Your task to perform on an android device: Go to display settings Image 0: 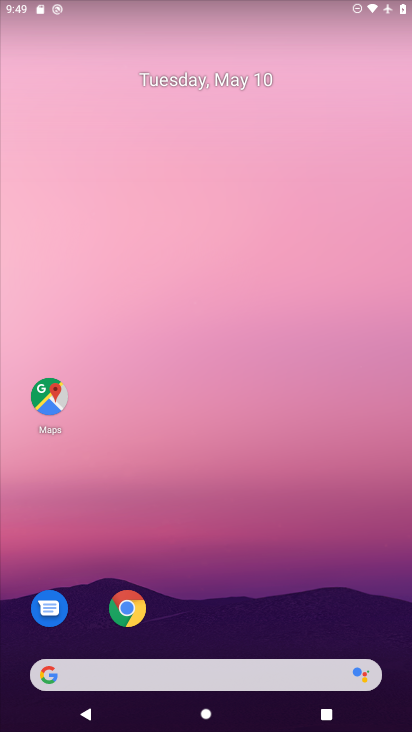
Step 0: drag from (271, 647) to (255, 287)
Your task to perform on an android device: Go to display settings Image 1: 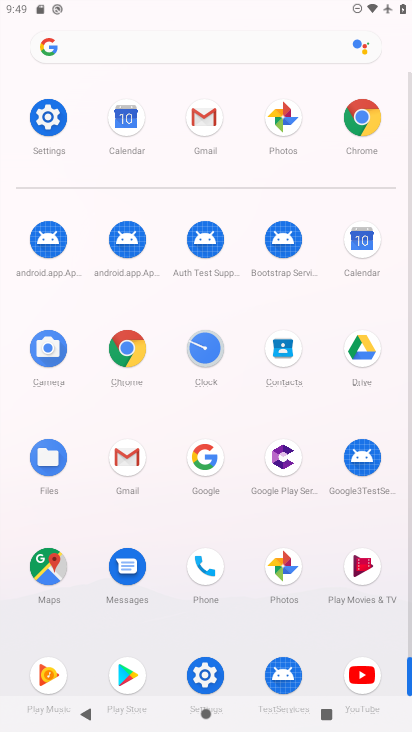
Step 1: click (56, 114)
Your task to perform on an android device: Go to display settings Image 2: 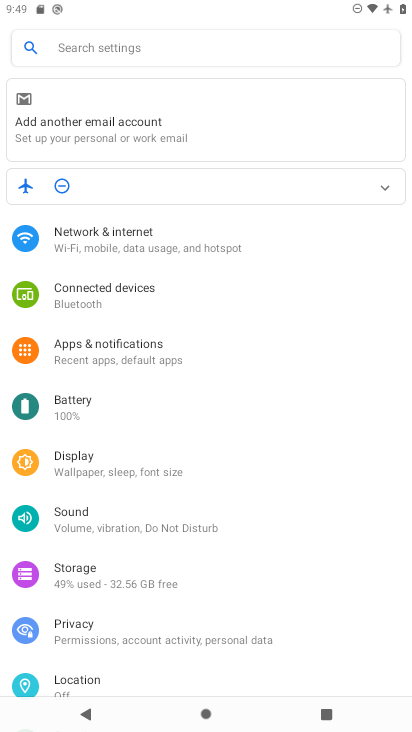
Step 2: click (94, 440)
Your task to perform on an android device: Go to display settings Image 3: 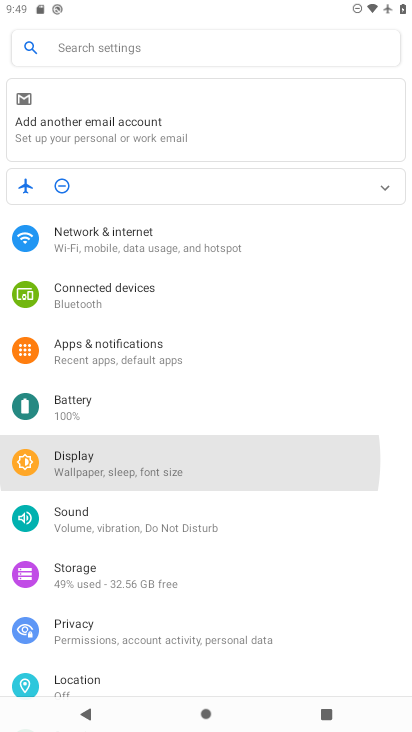
Step 3: click (102, 477)
Your task to perform on an android device: Go to display settings Image 4: 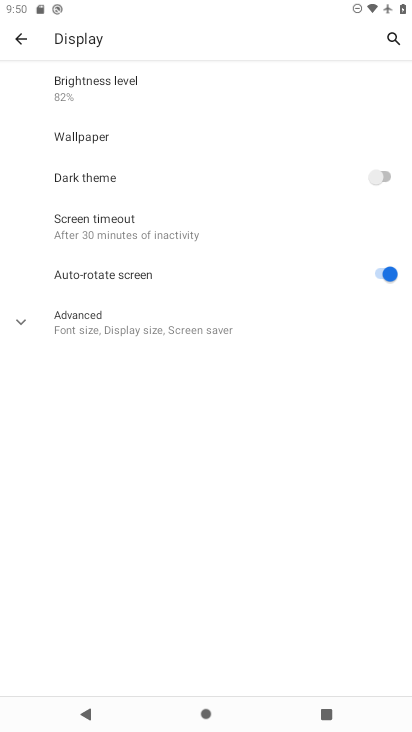
Step 4: task complete